Your task to perform on an android device: delete the emails in spam in the gmail app Image 0: 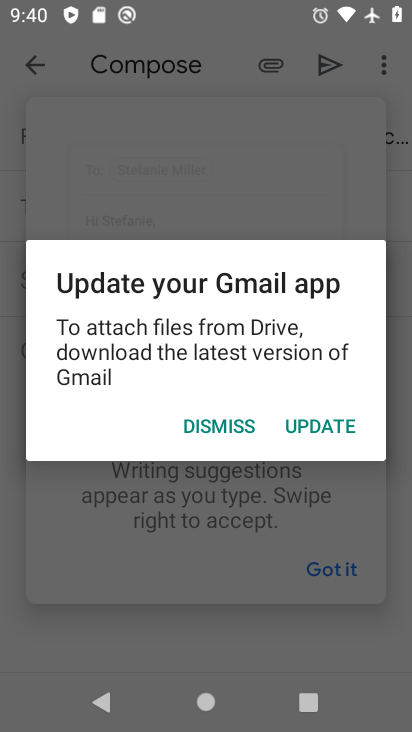
Step 0: press home button
Your task to perform on an android device: delete the emails in spam in the gmail app Image 1: 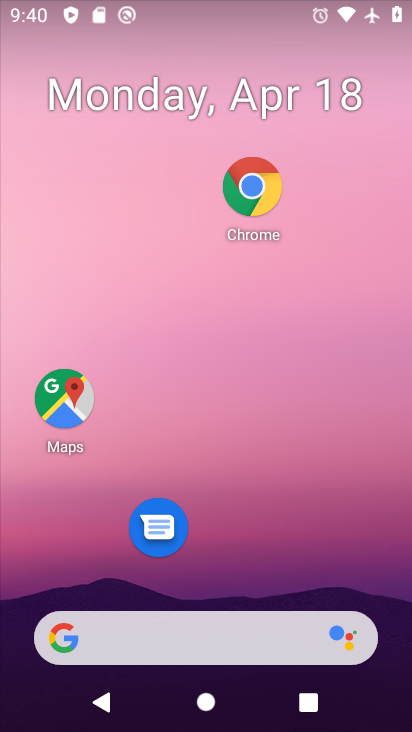
Step 1: drag from (289, 579) to (360, 195)
Your task to perform on an android device: delete the emails in spam in the gmail app Image 2: 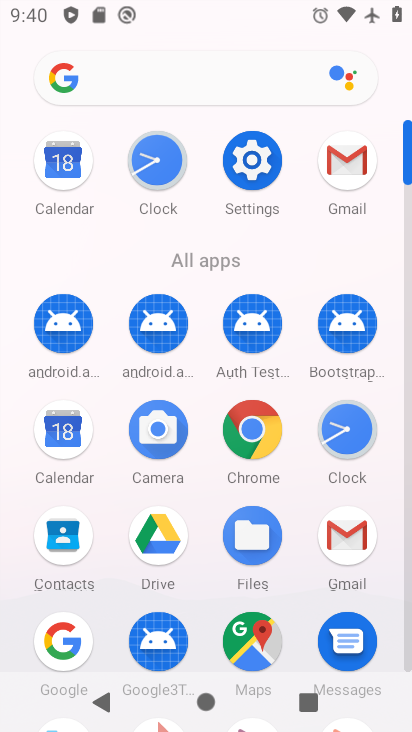
Step 2: click (339, 536)
Your task to perform on an android device: delete the emails in spam in the gmail app Image 3: 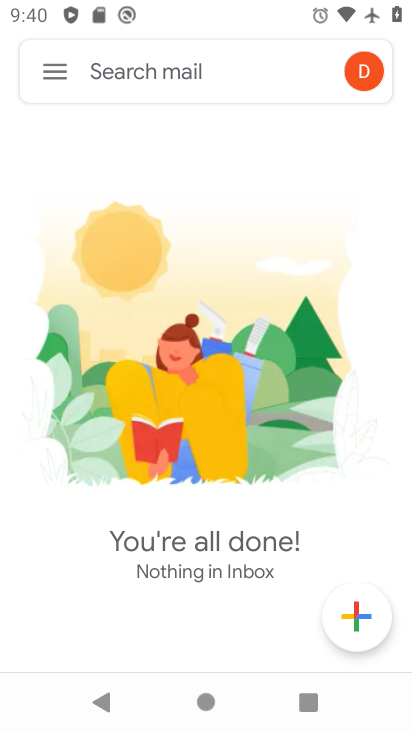
Step 3: click (51, 68)
Your task to perform on an android device: delete the emails in spam in the gmail app Image 4: 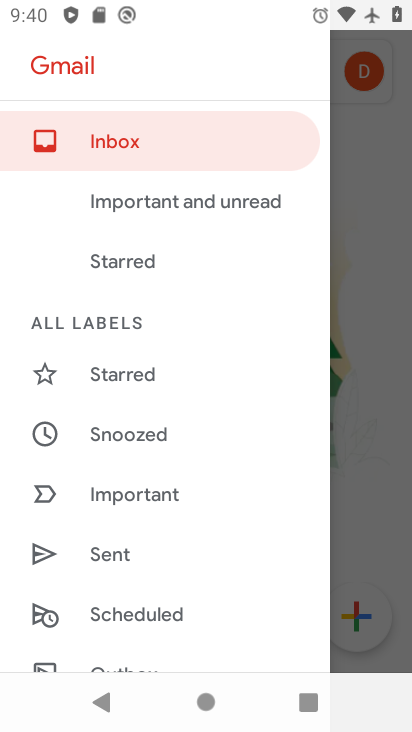
Step 4: drag from (128, 523) to (160, 215)
Your task to perform on an android device: delete the emails in spam in the gmail app Image 5: 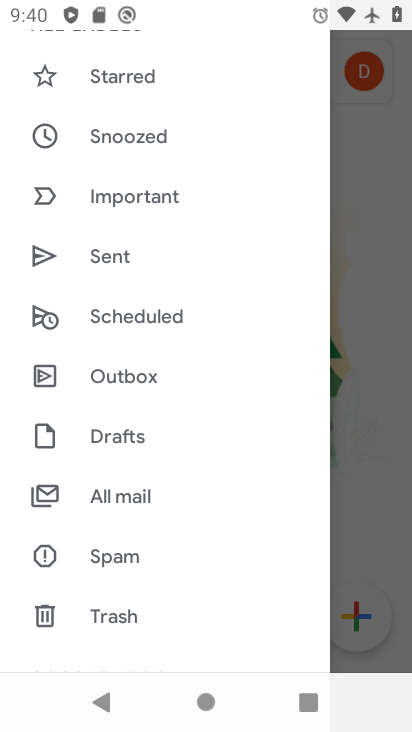
Step 5: click (134, 557)
Your task to perform on an android device: delete the emails in spam in the gmail app Image 6: 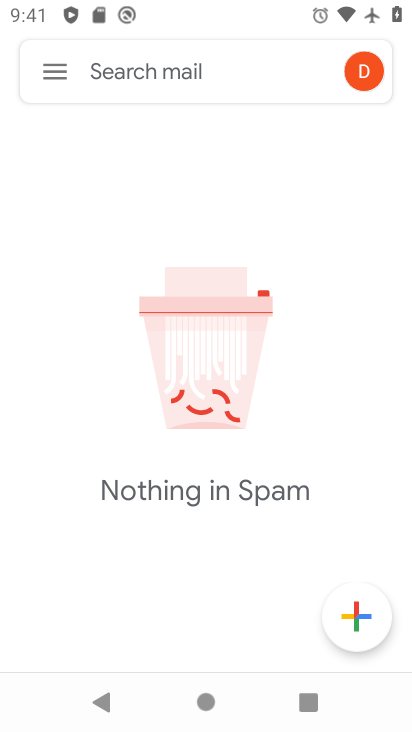
Step 6: task complete